Your task to perform on an android device: set the timer Image 0: 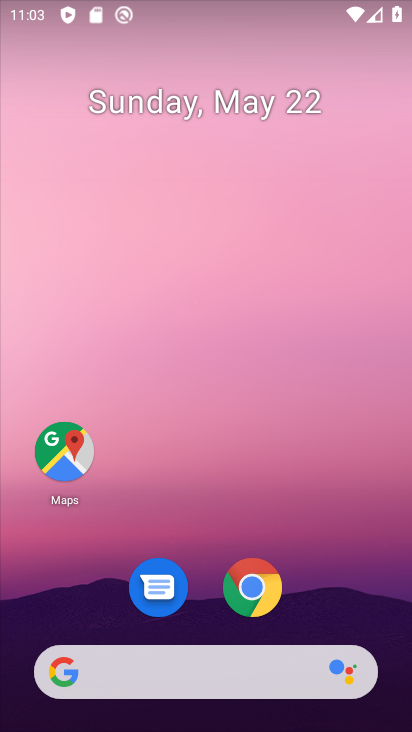
Step 0: press home button
Your task to perform on an android device: set the timer Image 1: 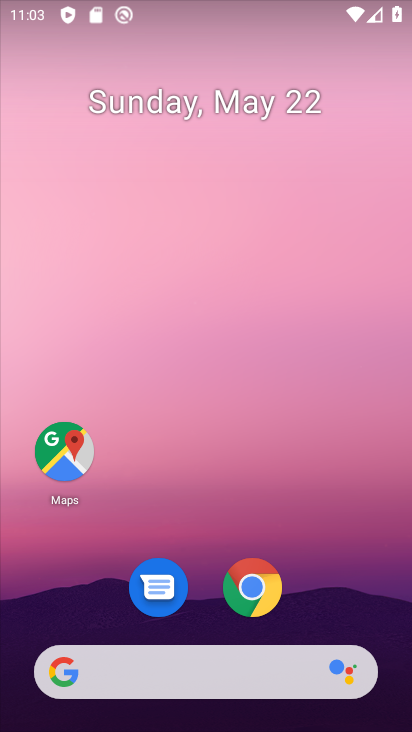
Step 1: drag from (354, 429) to (323, 141)
Your task to perform on an android device: set the timer Image 2: 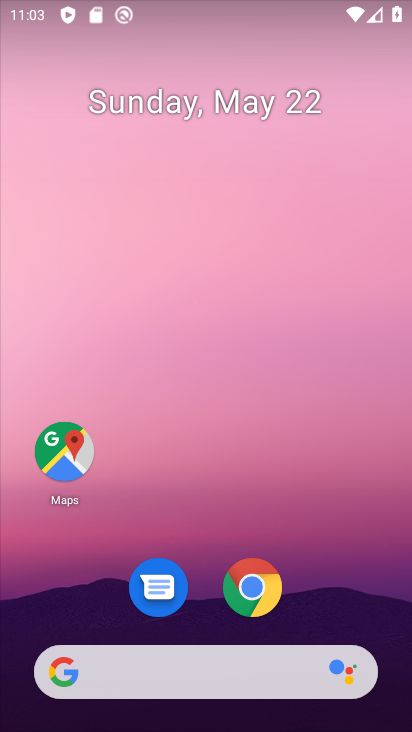
Step 2: drag from (353, 571) to (295, 125)
Your task to perform on an android device: set the timer Image 3: 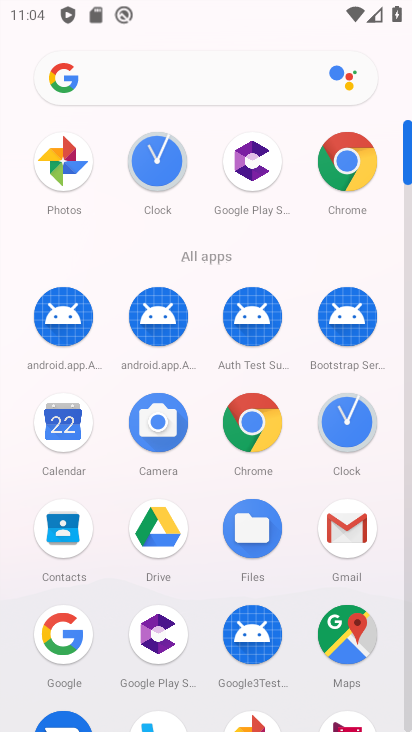
Step 3: drag from (361, 700) to (350, 323)
Your task to perform on an android device: set the timer Image 4: 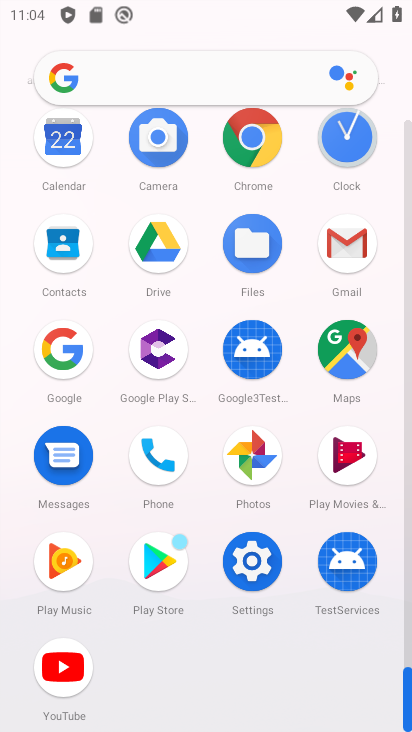
Step 4: click (334, 143)
Your task to perform on an android device: set the timer Image 5: 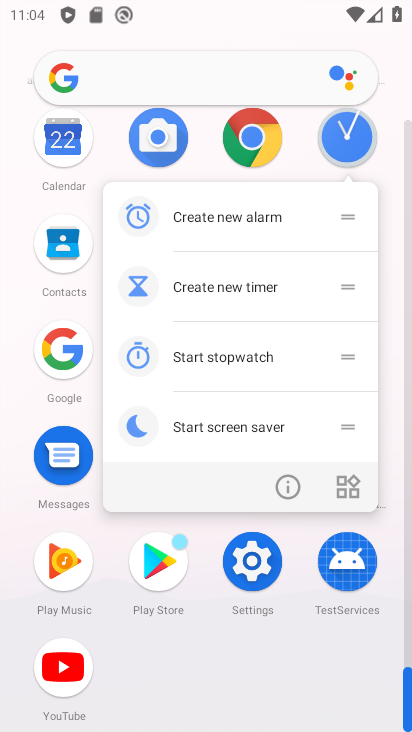
Step 5: click (224, 642)
Your task to perform on an android device: set the timer Image 6: 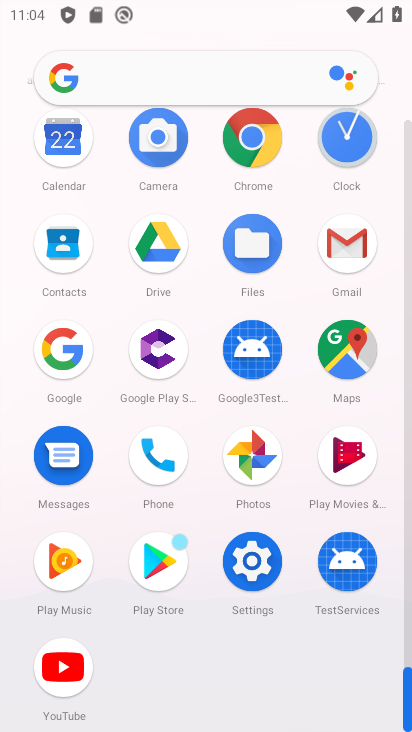
Step 6: click (368, 145)
Your task to perform on an android device: set the timer Image 7: 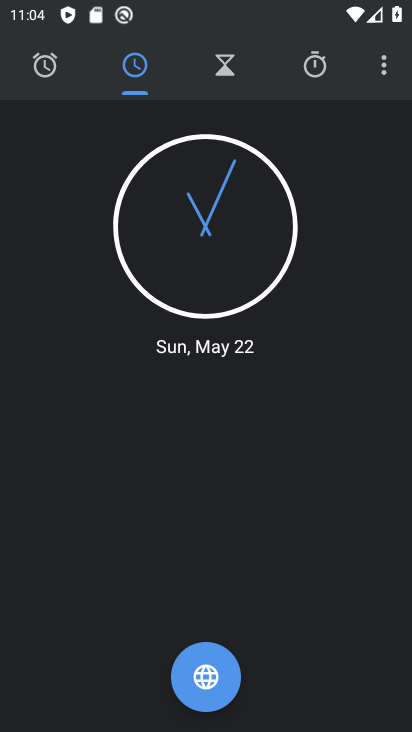
Step 7: click (381, 75)
Your task to perform on an android device: set the timer Image 8: 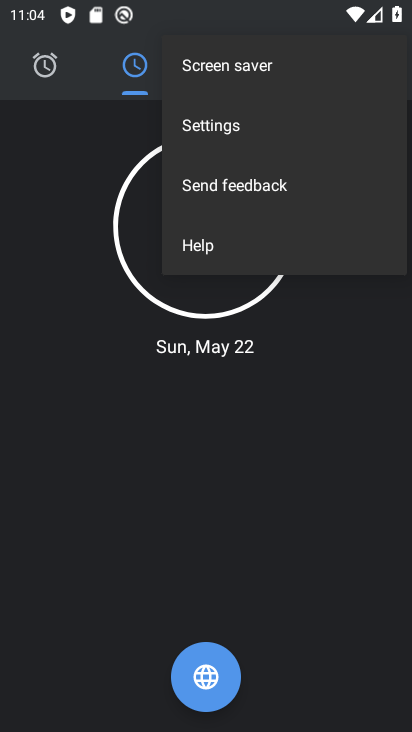
Step 8: click (73, 98)
Your task to perform on an android device: set the timer Image 9: 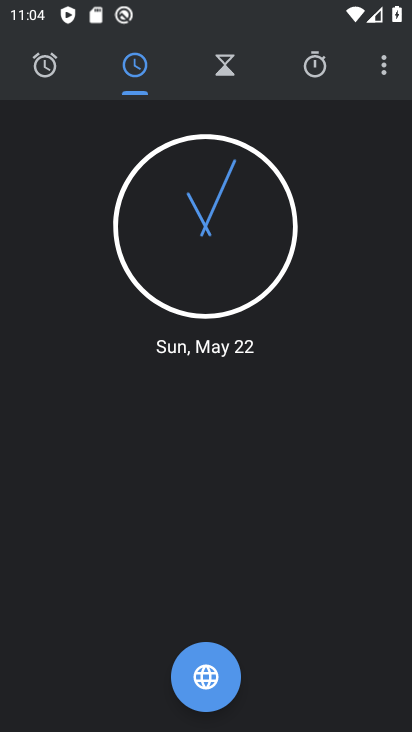
Step 9: click (220, 76)
Your task to perform on an android device: set the timer Image 10: 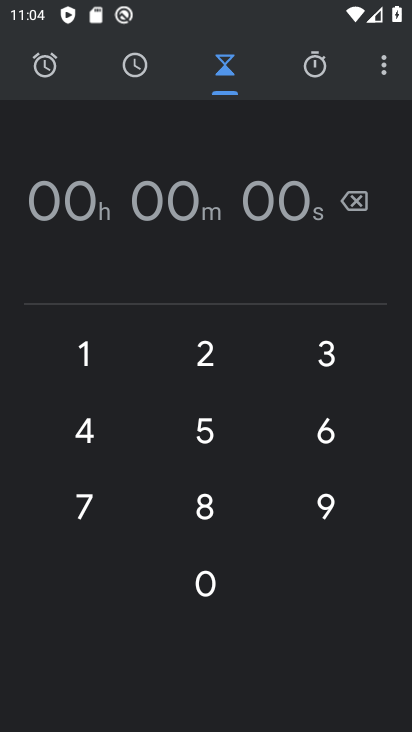
Step 10: click (98, 328)
Your task to perform on an android device: set the timer Image 11: 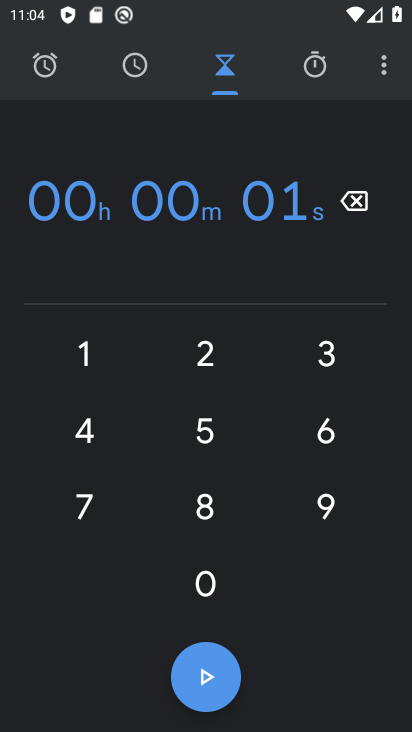
Step 11: click (199, 440)
Your task to perform on an android device: set the timer Image 12: 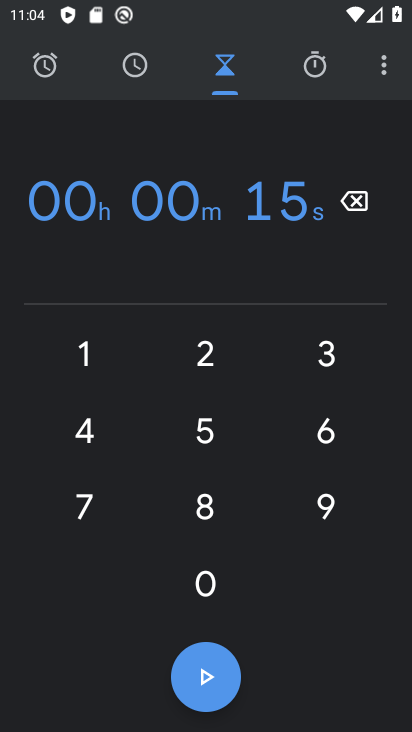
Step 12: click (247, 627)
Your task to perform on an android device: set the timer Image 13: 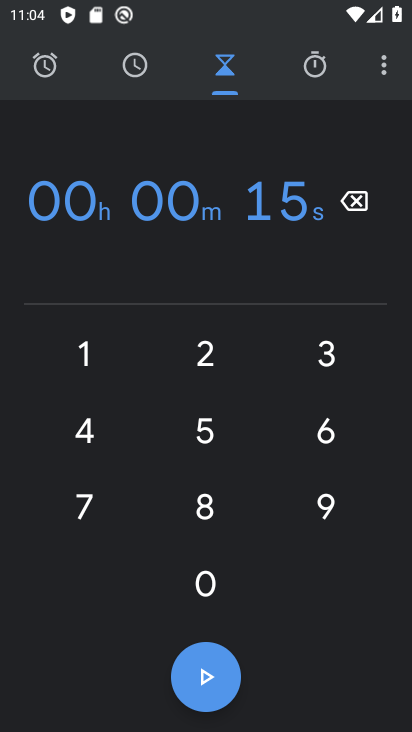
Step 13: click (203, 670)
Your task to perform on an android device: set the timer Image 14: 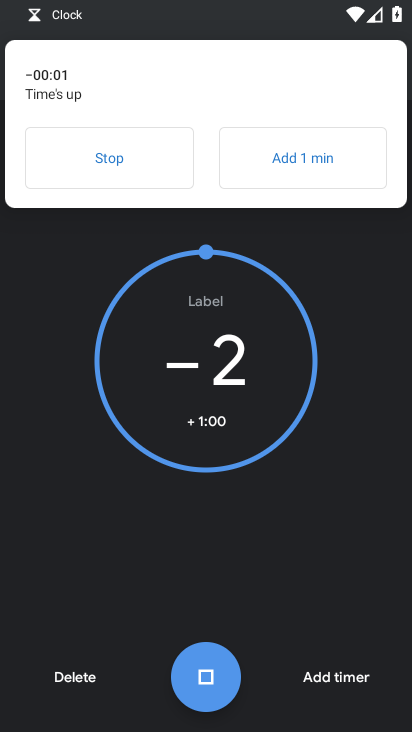
Step 14: click (132, 133)
Your task to perform on an android device: set the timer Image 15: 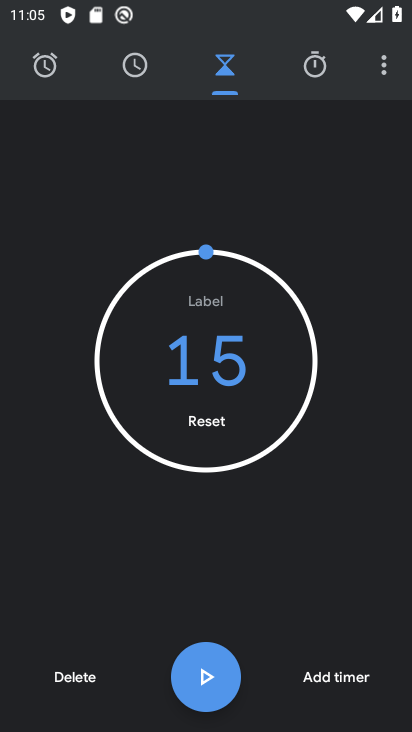
Step 15: click (134, 164)
Your task to perform on an android device: set the timer Image 16: 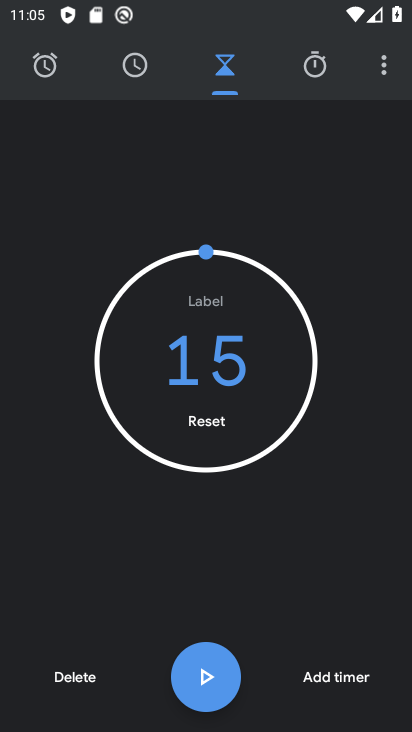
Step 16: task complete